Your task to perform on an android device: turn vacation reply on in the gmail app Image 0: 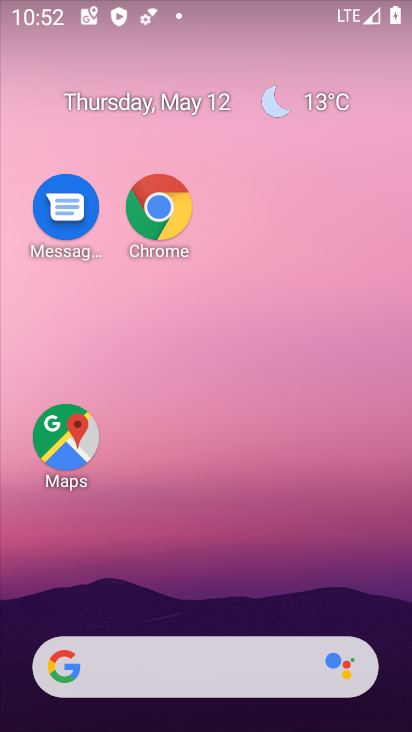
Step 0: drag from (236, 631) to (174, 24)
Your task to perform on an android device: turn vacation reply on in the gmail app Image 1: 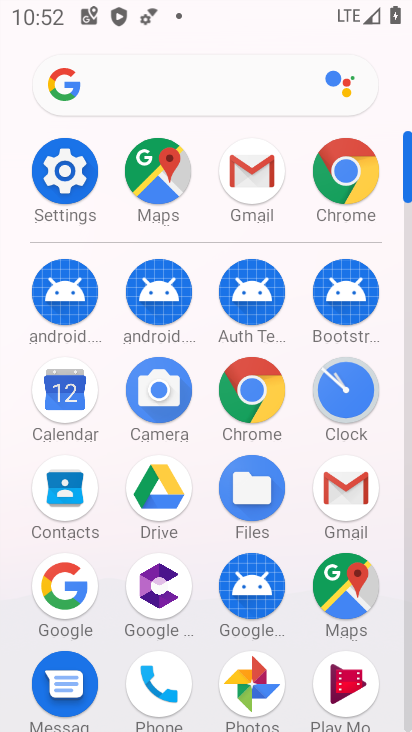
Step 1: click (354, 511)
Your task to perform on an android device: turn vacation reply on in the gmail app Image 2: 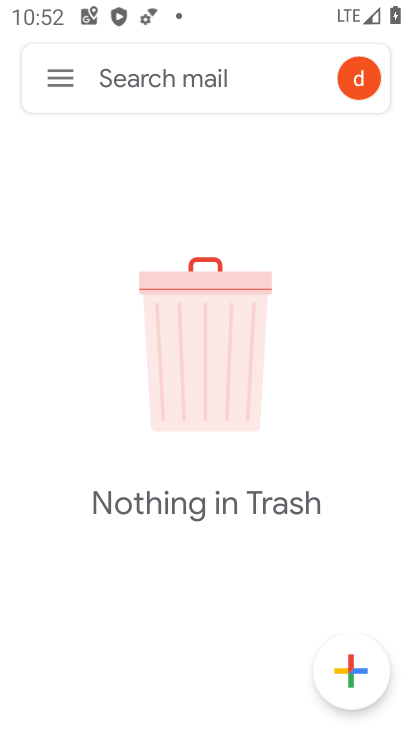
Step 2: click (47, 71)
Your task to perform on an android device: turn vacation reply on in the gmail app Image 3: 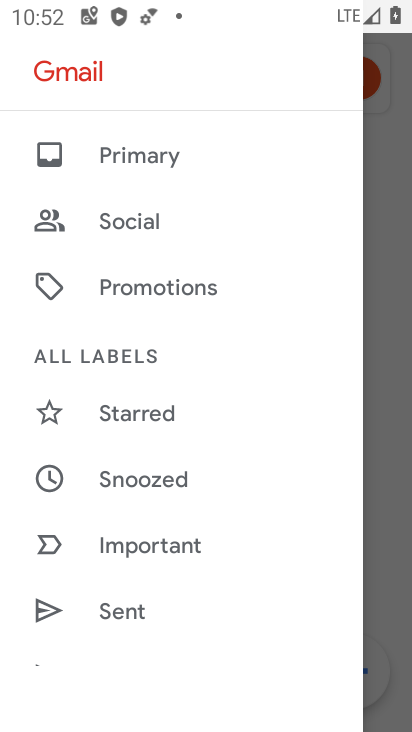
Step 3: drag from (191, 529) to (161, 114)
Your task to perform on an android device: turn vacation reply on in the gmail app Image 4: 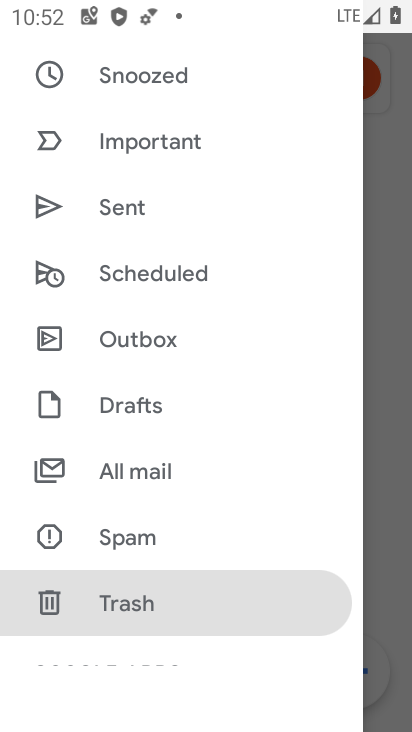
Step 4: drag from (157, 638) to (128, 45)
Your task to perform on an android device: turn vacation reply on in the gmail app Image 5: 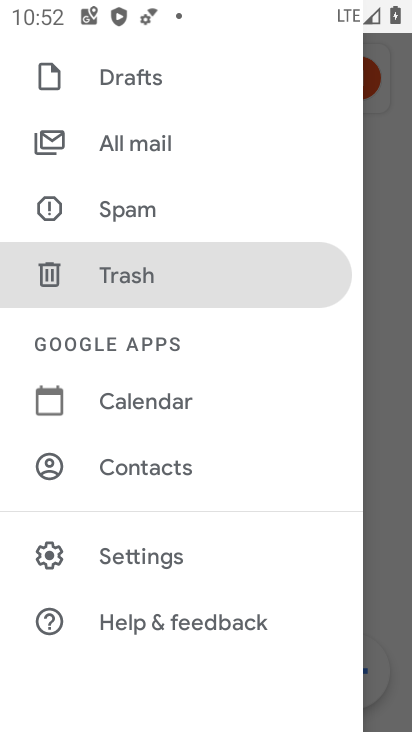
Step 5: click (132, 572)
Your task to perform on an android device: turn vacation reply on in the gmail app Image 6: 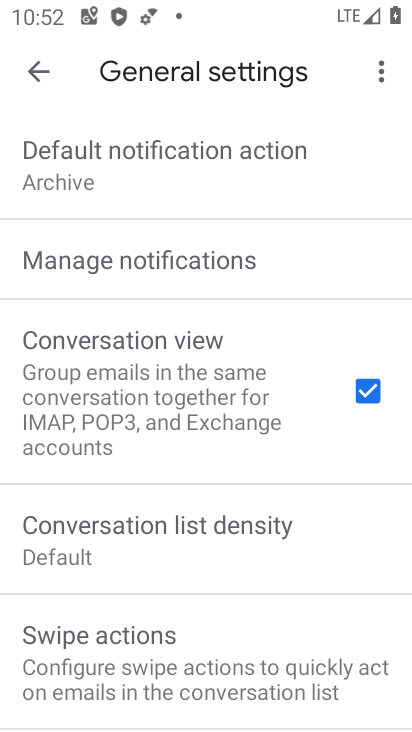
Step 6: drag from (210, 579) to (207, 259)
Your task to perform on an android device: turn vacation reply on in the gmail app Image 7: 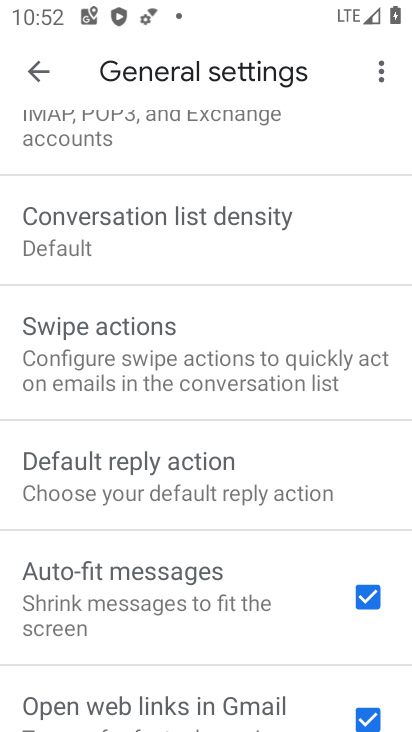
Step 7: drag from (218, 599) to (152, 116)
Your task to perform on an android device: turn vacation reply on in the gmail app Image 8: 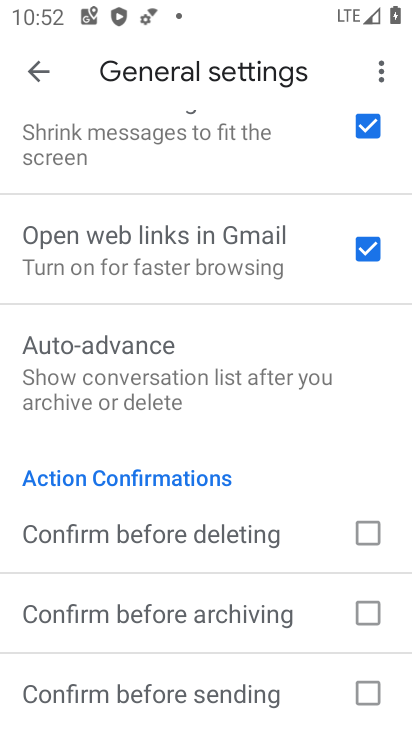
Step 8: click (47, 65)
Your task to perform on an android device: turn vacation reply on in the gmail app Image 9: 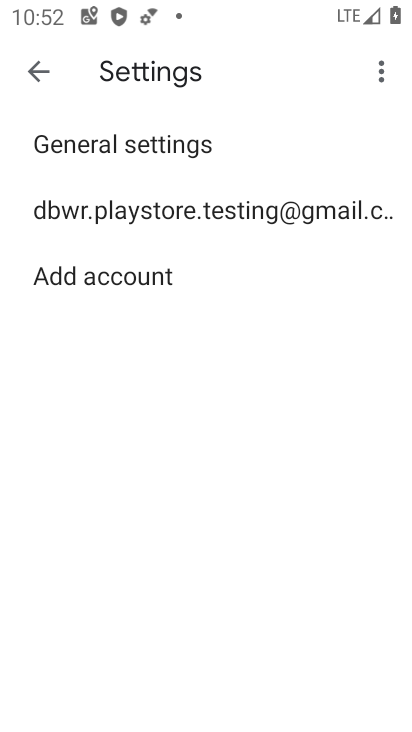
Step 9: click (118, 223)
Your task to perform on an android device: turn vacation reply on in the gmail app Image 10: 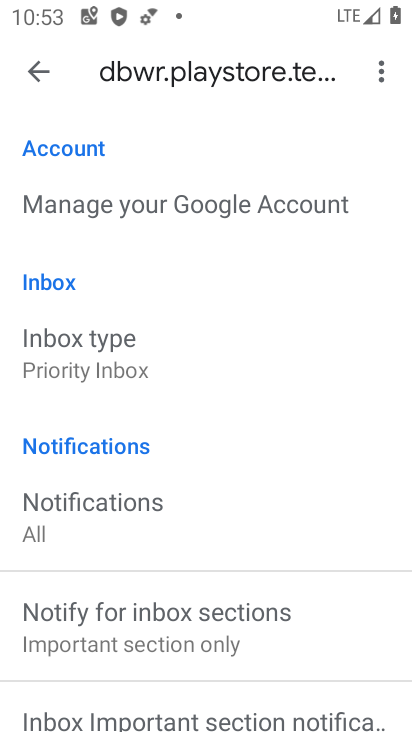
Step 10: drag from (248, 603) to (137, 33)
Your task to perform on an android device: turn vacation reply on in the gmail app Image 11: 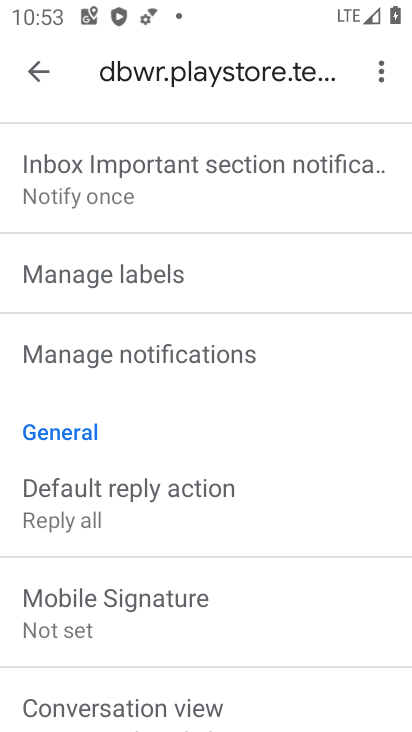
Step 11: drag from (299, 561) to (260, 80)
Your task to perform on an android device: turn vacation reply on in the gmail app Image 12: 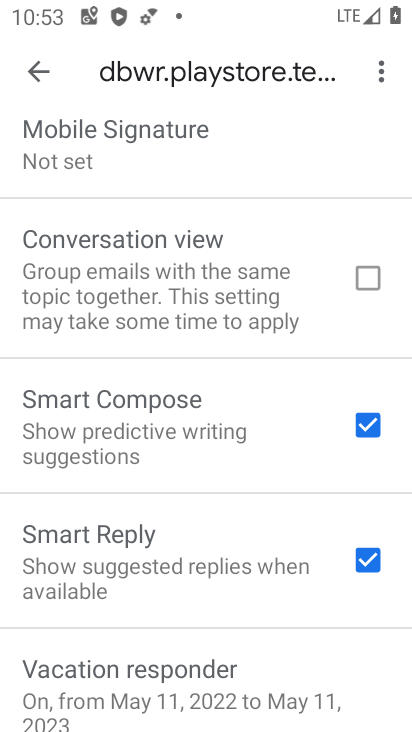
Step 12: drag from (240, 539) to (216, 344)
Your task to perform on an android device: turn vacation reply on in the gmail app Image 13: 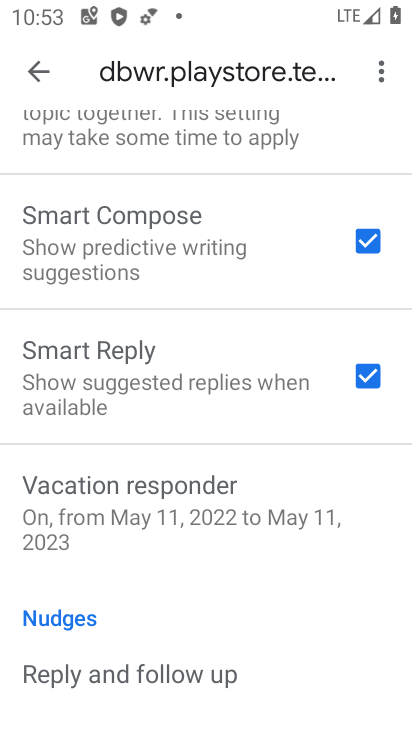
Step 13: click (200, 479)
Your task to perform on an android device: turn vacation reply on in the gmail app Image 14: 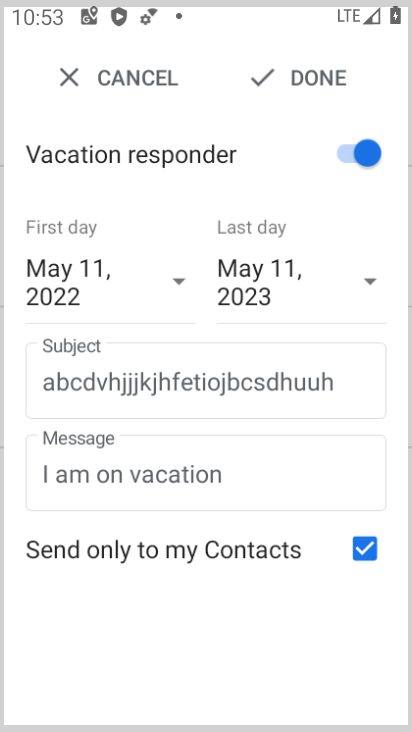
Step 14: task complete